Your task to perform on an android device: Search for pizza restaurants on Maps Image 0: 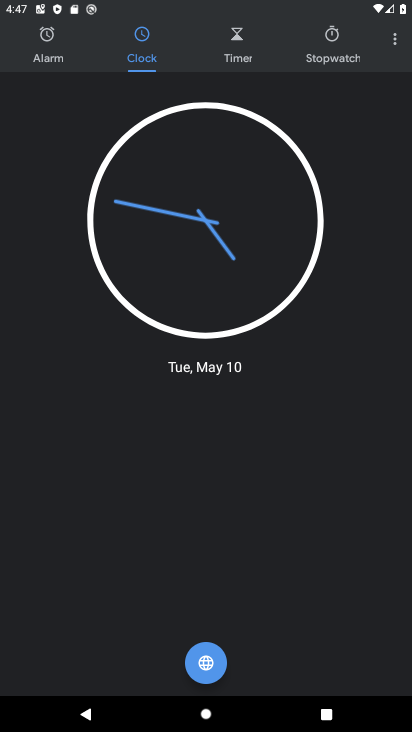
Step 0: press back button
Your task to perform on an android device: Search for pizza restaurants on Maps Image 1: 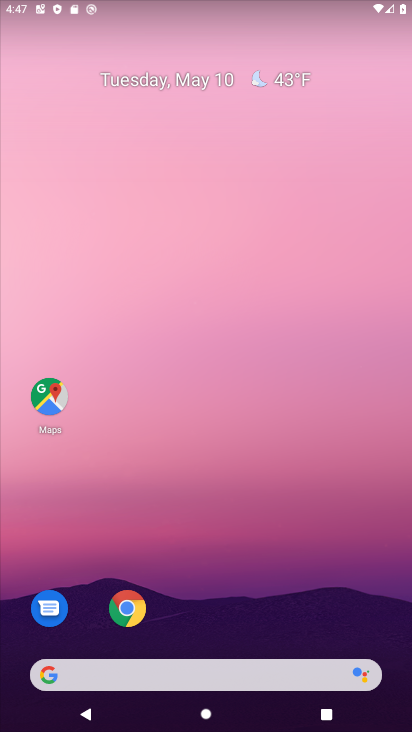
Step 1: click (35, 404)
Your task to perform on an android device: Search for pizza restaurants on Maps Image 2: 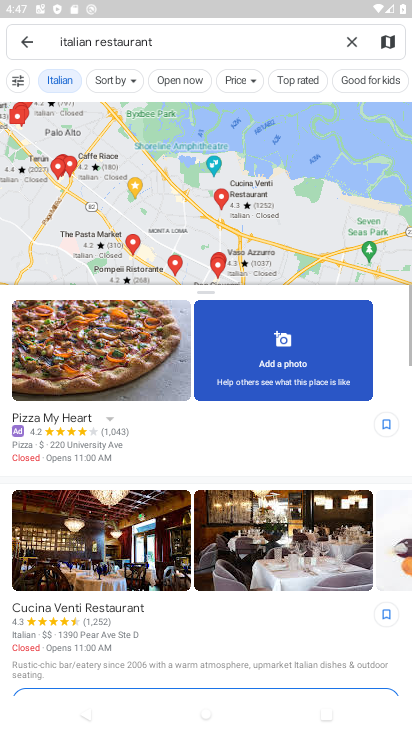
Step 2: click (349, 46)
Your task to perform on an android device: Search for pizza restaurants on Maps Image 3: 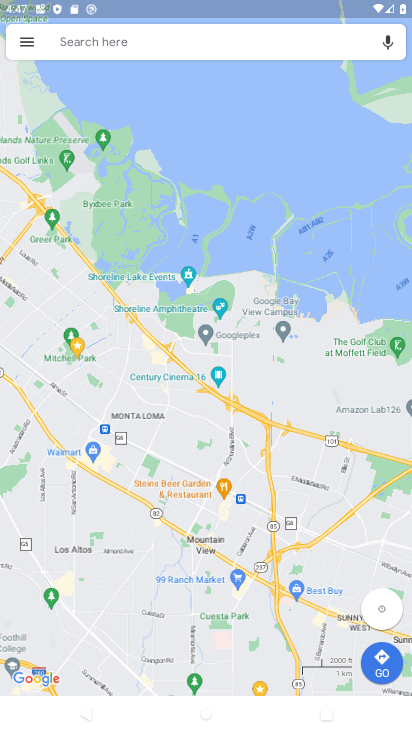
Step 3: click (162, 52)
Your task to perform on an android device: Search for pizza restaurants on Maps Image 4: 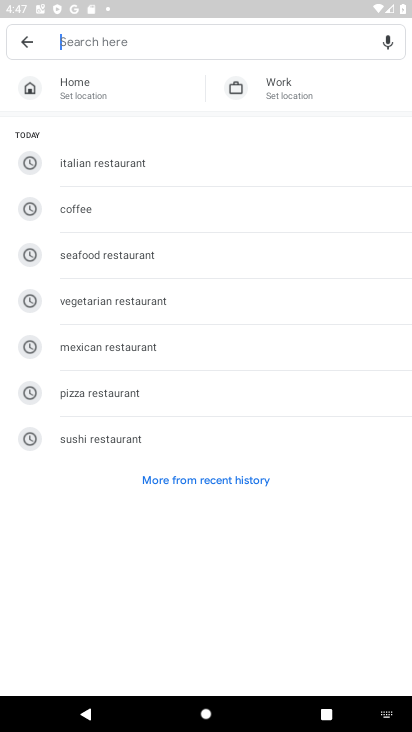
Step 4: click (95, 390)
Your task to perform on an android device: Search for pizza restaurants on Maps Image 5: 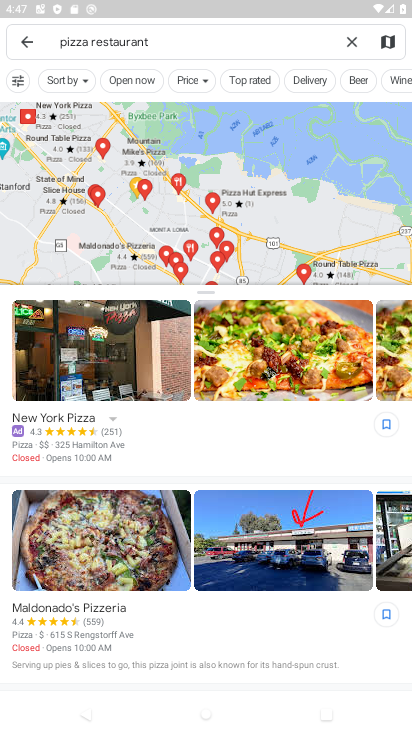
Step 5: task complete